Your task to perform on an android device: toggle data saver in the chrome app Image 0: 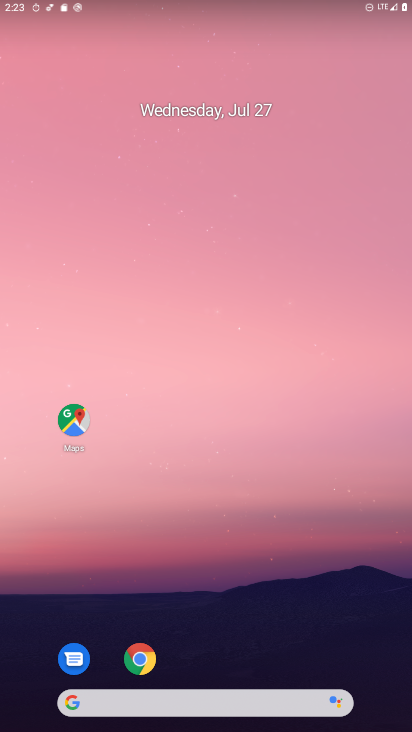
Step 0: drag from (252, 643) to (193, 72)
Your task to perform on an android device: toggle data saver in the chrome app Image 1: 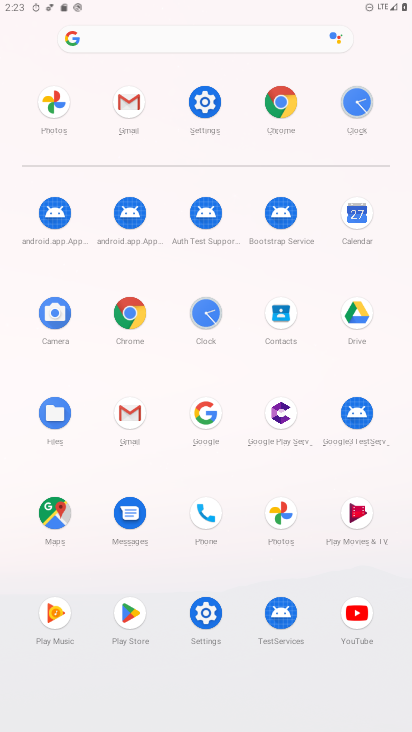
Step 1: click (280, 100)
Your task to perform on an android device: toggle data saver in the chrome app Image 2: 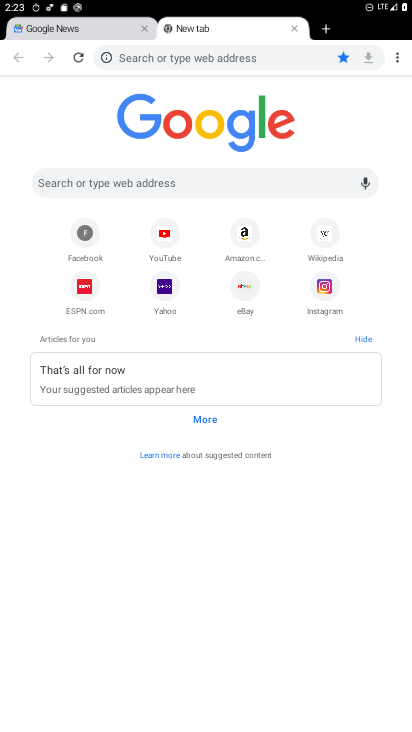
Step 2: drag from (398, 55) to (274, 262)
Your task to perform on an android device: toggle data saver in the chrome app Image 3: 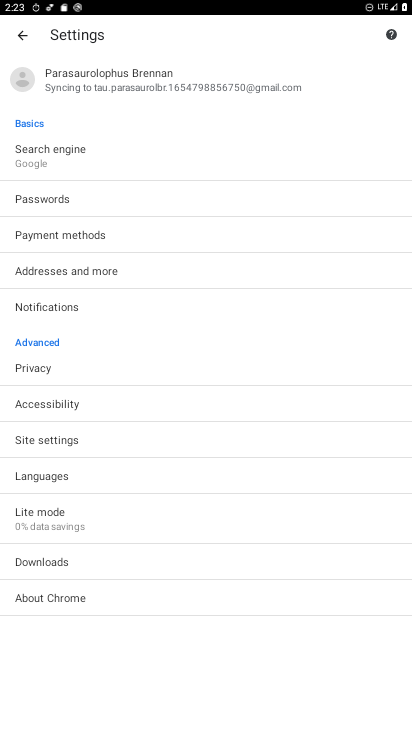
Step 3: click (43, 528)
Your task to perform on an android device: toggle data saver in the chrome app Image 4: 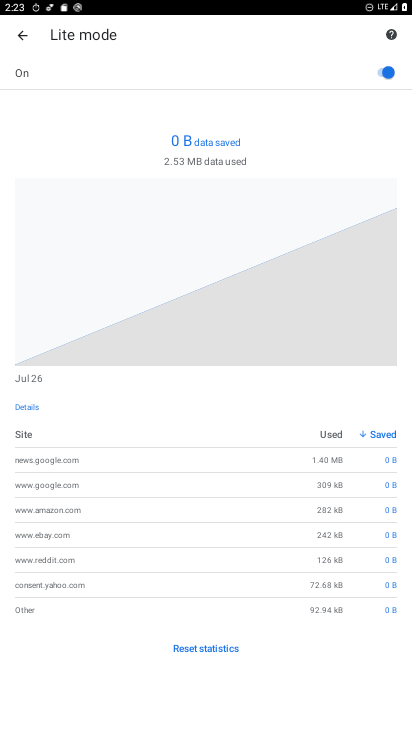
Step 4: click (382, 75)
Your task to perform on an android device: toggle data saver in the chrome app Image 5: 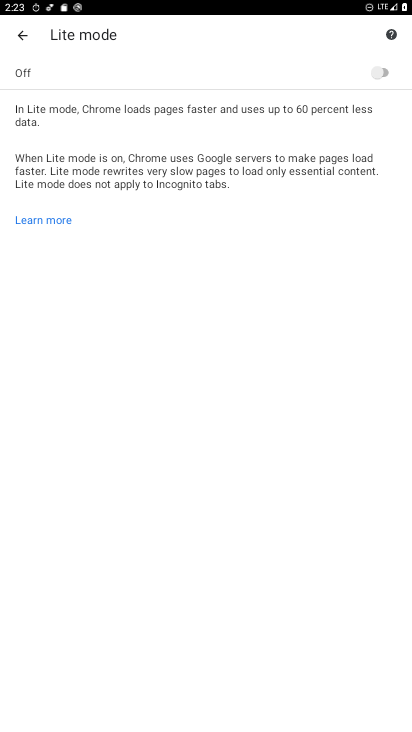
Step 5: task complete